Your task to perform on an android device: Go to Wikipedia Image 0: 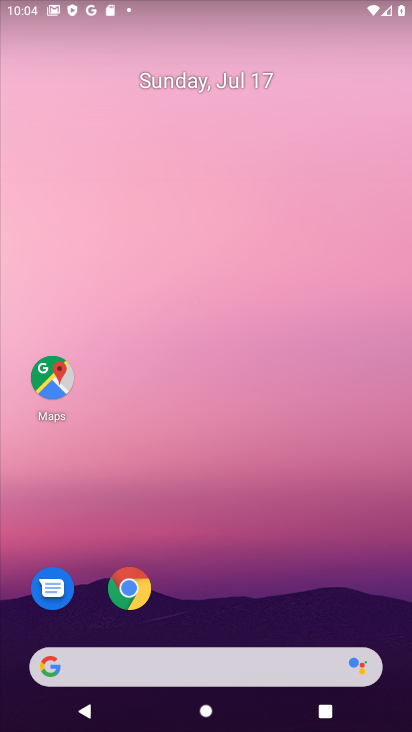
Step 0: click (117, 578)
Your task to perform on an android device: Go to Wikipedia Image 1: 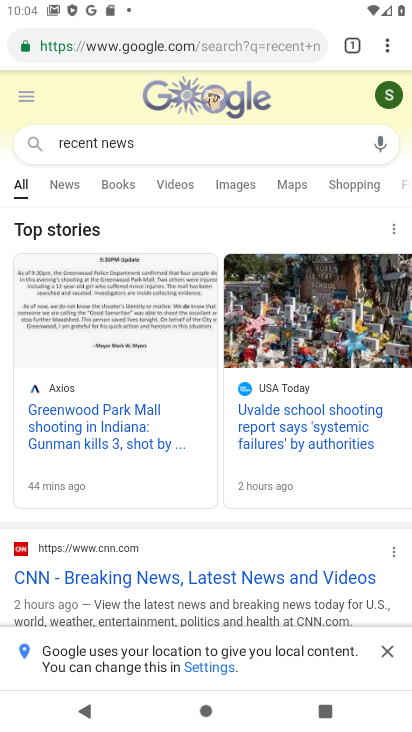
Step 1: click (349, 46)
Your task to perform on an android device: Go to Wikipedia Image 2: 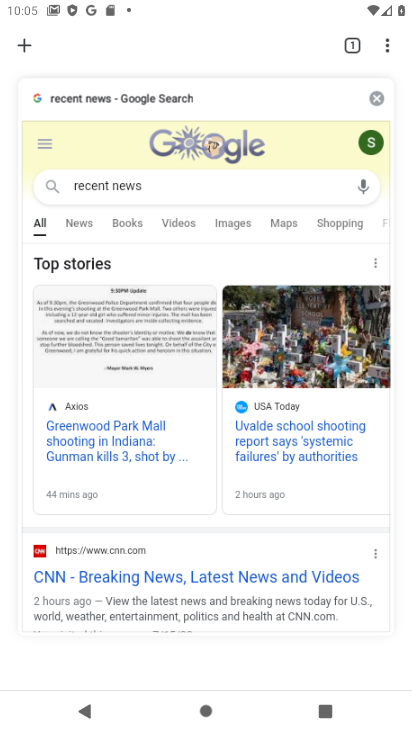
Step 2: click (21, 53)
Your task to perform on an android device: Go to Wikipedia Image 3: 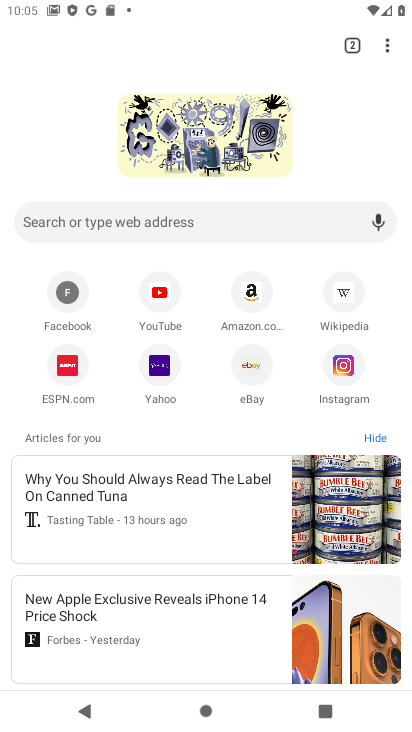
Step 3: click (348, 314)
Your task to perform on an android device: Go to Wikipedia Image 4: 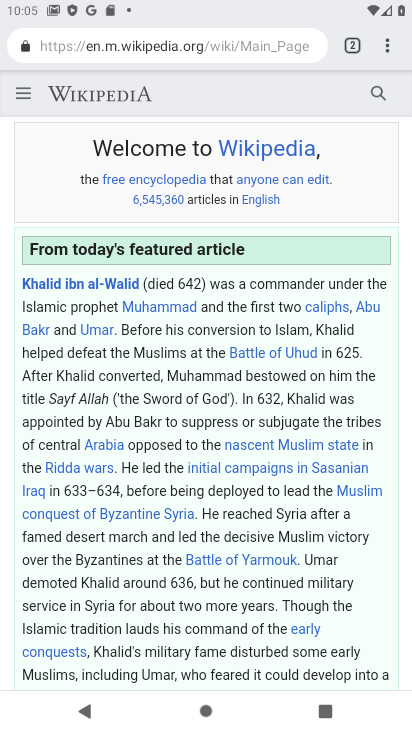
Step 4: task complete